Your task to perform on an android device: toggle data saver in the chrome app Image 0: 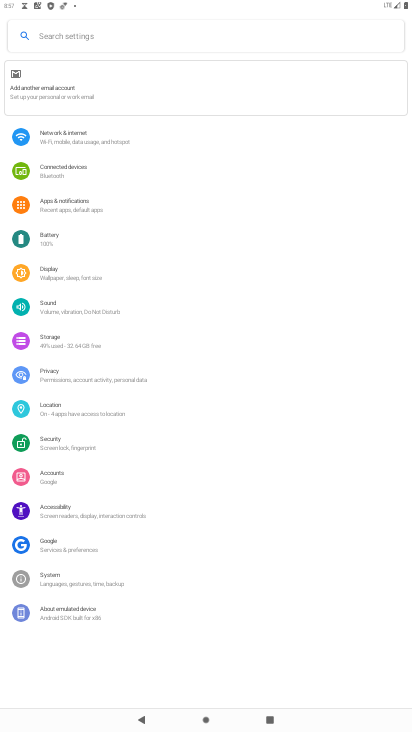
Step 0: press home button
Your task to perform on an android device: toggle data saver in the chrome app Image 1: 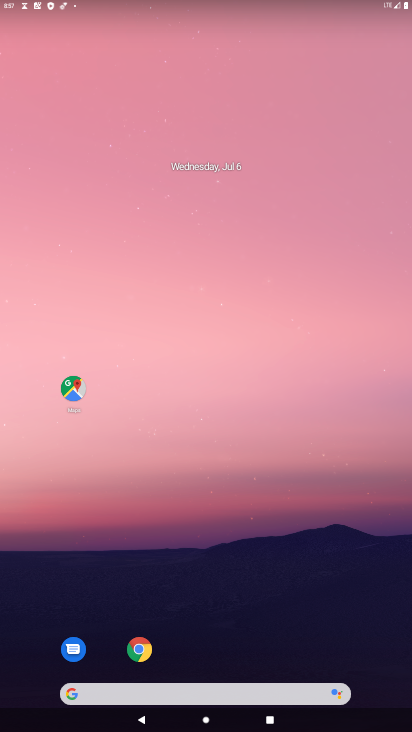
Step 1: click (141, 649)
Your task to perform on an android device: toggle data saver in the chrome app Image 2: 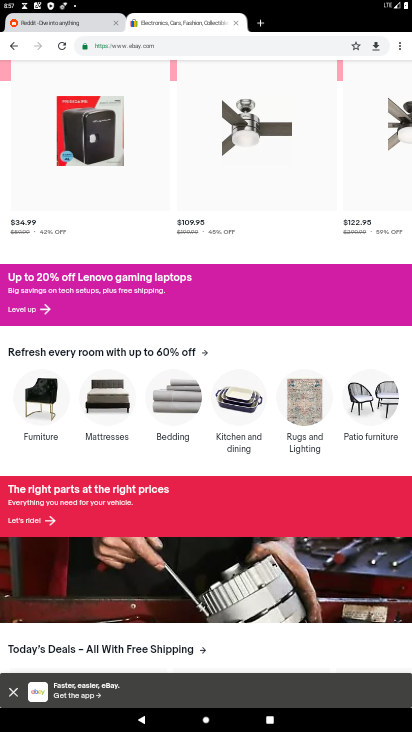
Step 2: click (402, 43)
Your task to perform on an android device: toggle data saver in the chrome app Image 3: 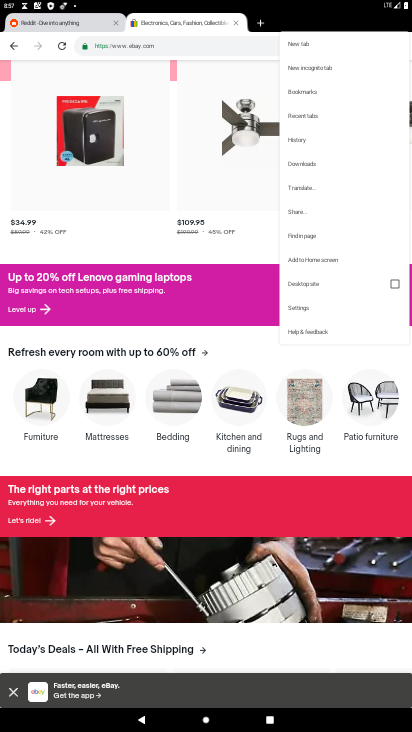
Step 3: click (313, 303)
Your task to perform on an android device: toggle data saver in the chrome app Image 4: 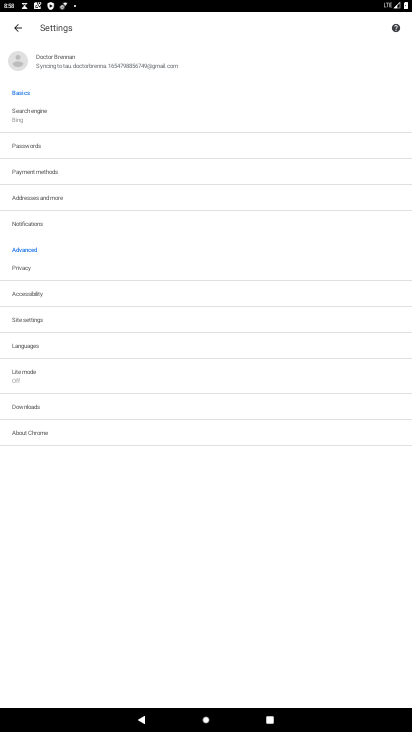
Step 4: click (54, 377)
Your task to perform on an android device: toggle data saver in the chrome app Image 5: 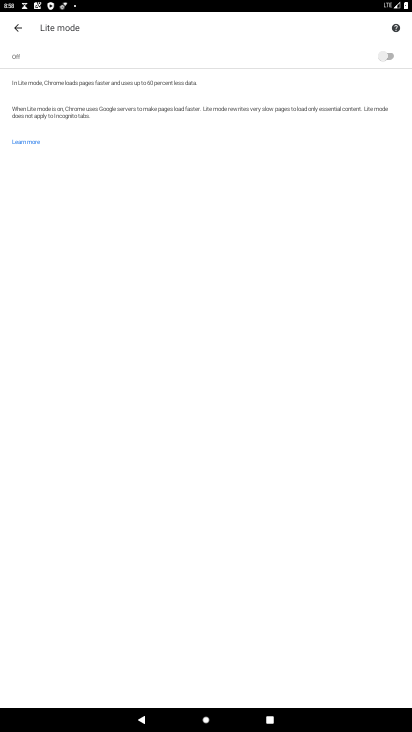
Step 5: click (387, 56)
Your task to perform on an android device: toggle data saver in the chrome app Image 6: 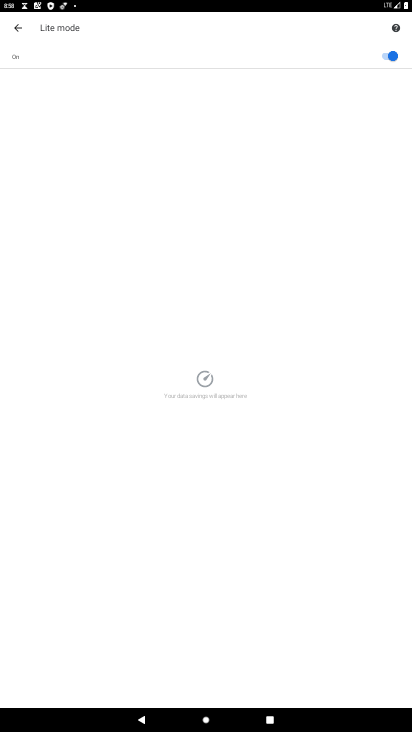
Step 6: task complete